Your task to perform on an android device: turn on showing notifications on the lock screen Image 0: 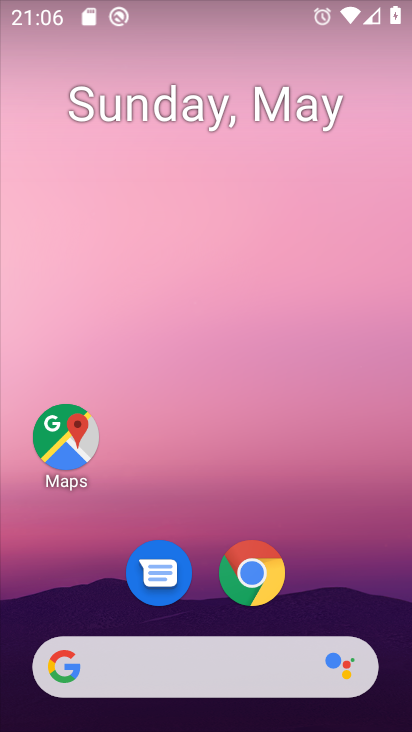
Step 0: drag from (224, 484) to (235, 1)
Your task to perform on an android device: turn on showing notifications on the lock screen Image 1: 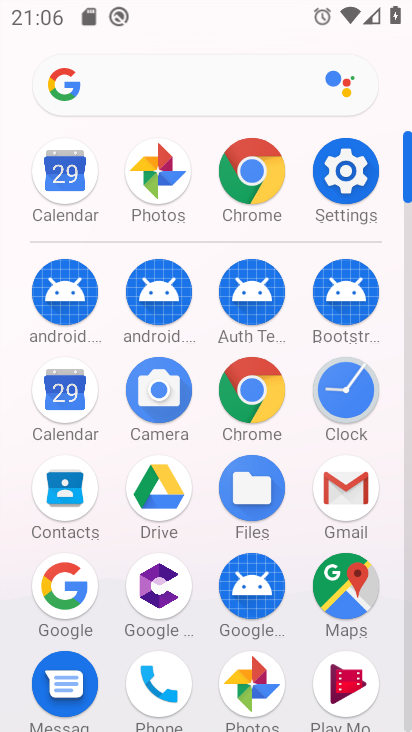
Step 1: click (343, 174)
Your task to perform on an android device: turn on showing notifications on the lock screen Image 2: 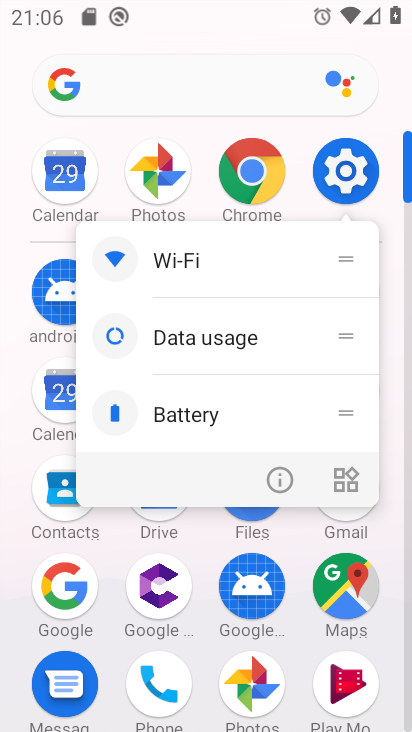
Step 2: click (343, 171)
Your task to perform on an android device: turn on showing notifications on the lock screen Image 3: 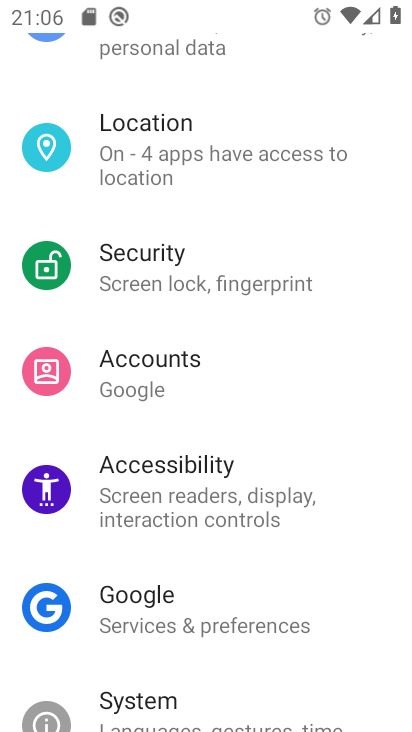
Step 3: drag from (227, 259) to (225, 576)
Your task to perform on an android device: turn on showing notifications on the lock screen Image 4: 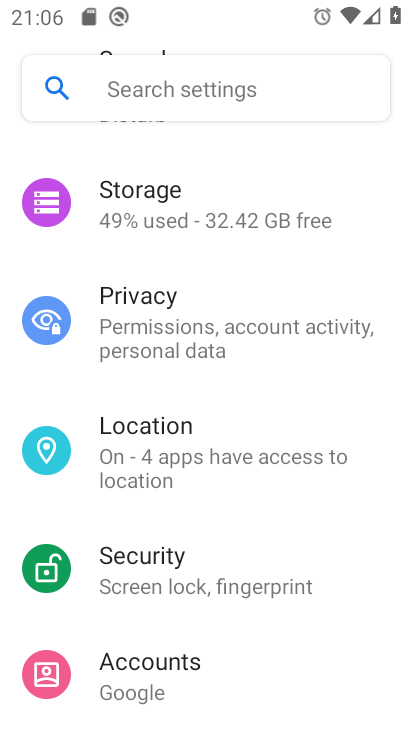
Step 4: drag from (229, 300) to (207, 634)
Your task to perform on an android device: turn on showing notifications on the lock screen Image 5: 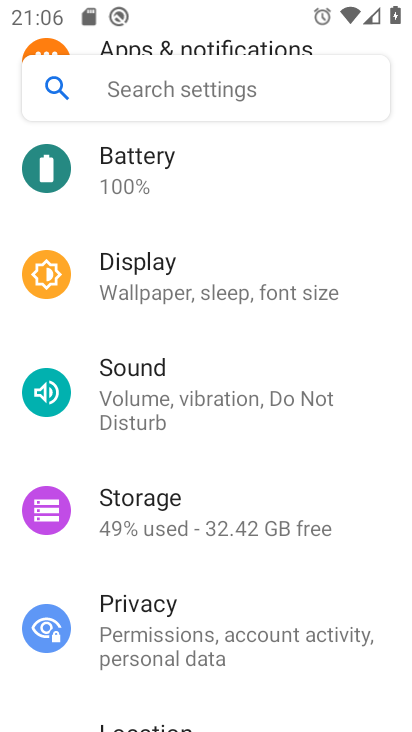
Step 5: drag from (228, 235) to (255, 689)
Your task to perform on an android device: turn on showing notifications on the lock screen Image 6: 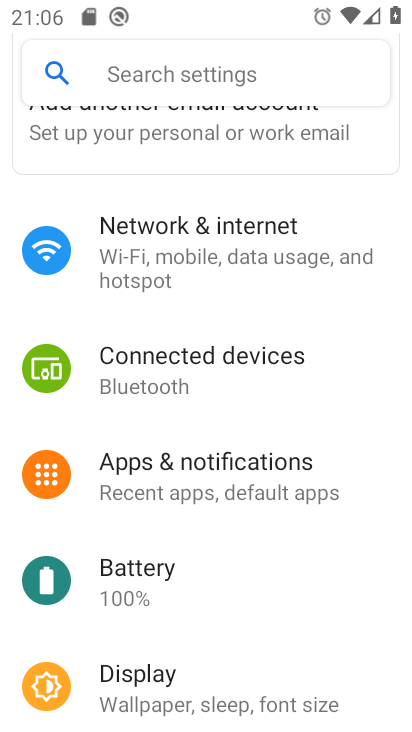
Step 6: click (220, 476)
Your task to perform on an android device: turn on showing notifications on the lock screen Image 7: 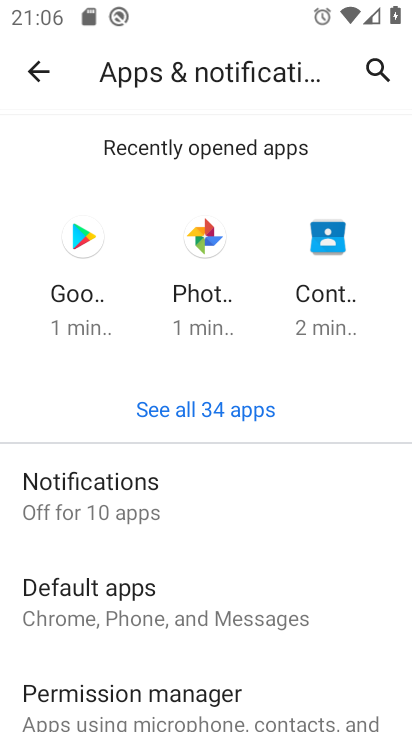
Step 7: click (197, 491)
Your task to perform on an android device: turn on showing notifications on the lock screen Image 8: 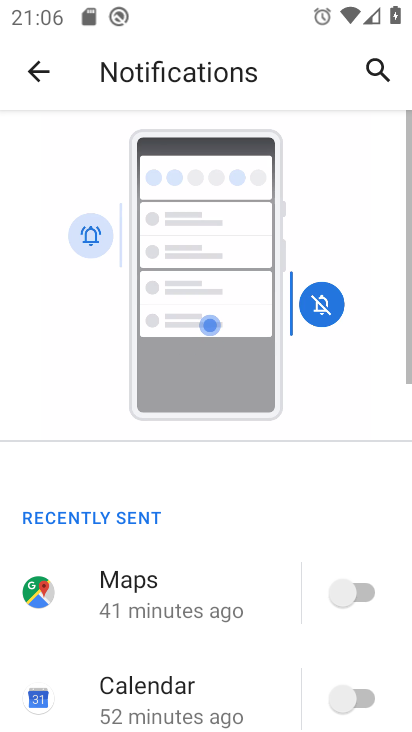
Step 8: task complete